Your task to perform on an android device: Open display settings Image 0: 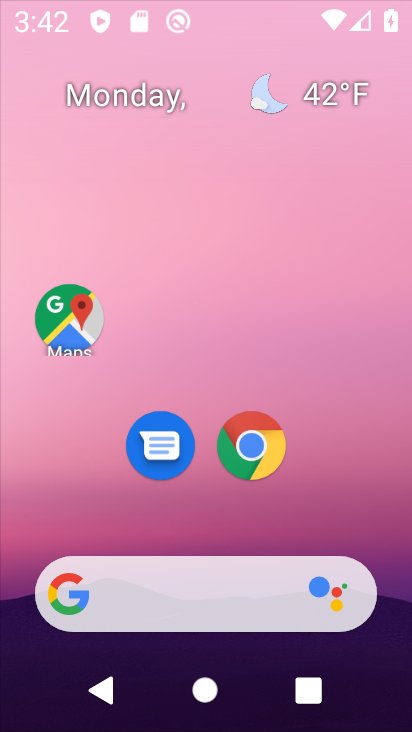
Step 0: drag from (31, 512) to (187, 16)
Your task to perform on an android device: Open display settings Image 1: 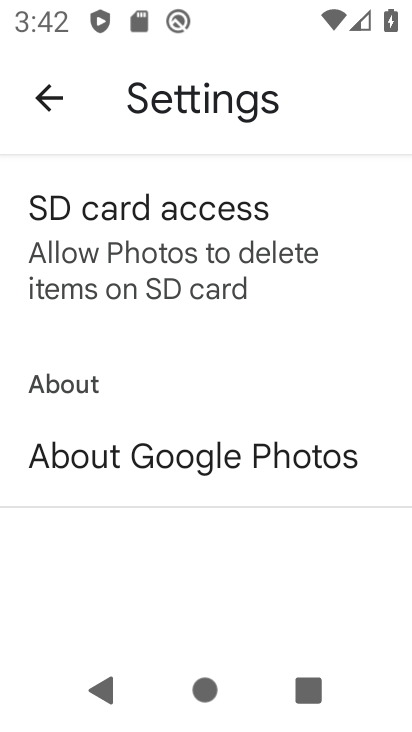
Step 1: press home button
Your task to perform on an android device: Open display settings Image 2: 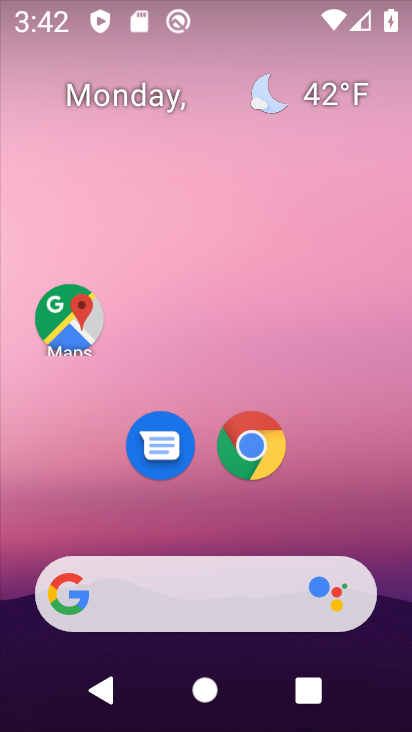
Step 2: click (0, 526)
Your task to perform on an android device: Open display settings Image 3: 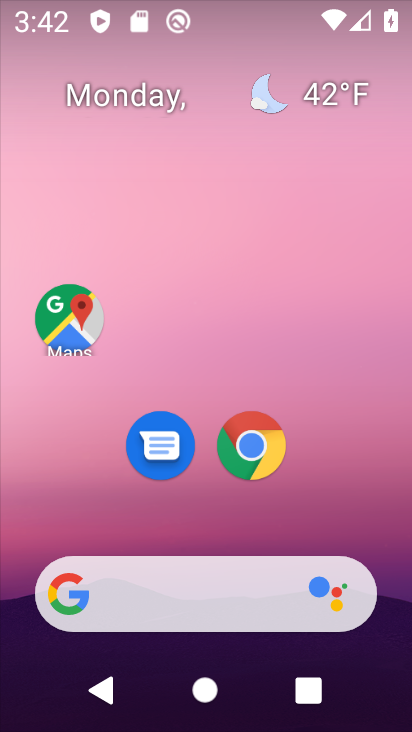
Step 3: drag from (4, 497) to (183, 59)
Your task to perform on an android device: Open display settings Image 4: 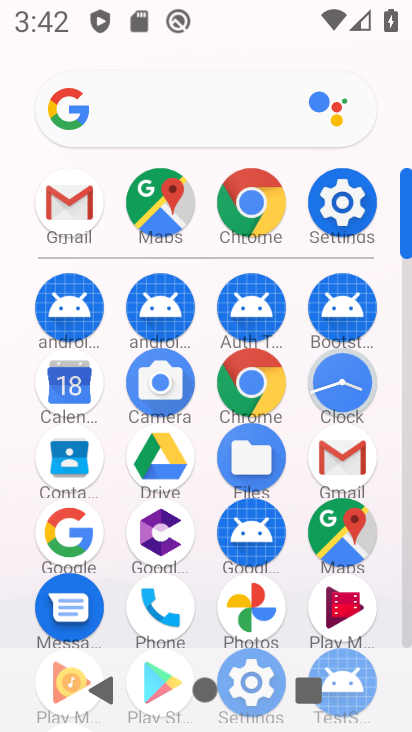
Step 4: click (356, 223)
Your task to perform on an android device: Open display settings Image 5: 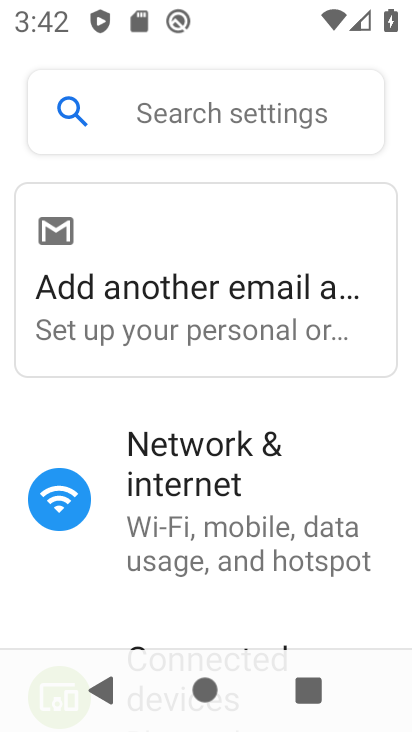
Step 5: drag from (273, 566) to (223, 80)
Your task to perform on an android device: Open display settings Image 6: 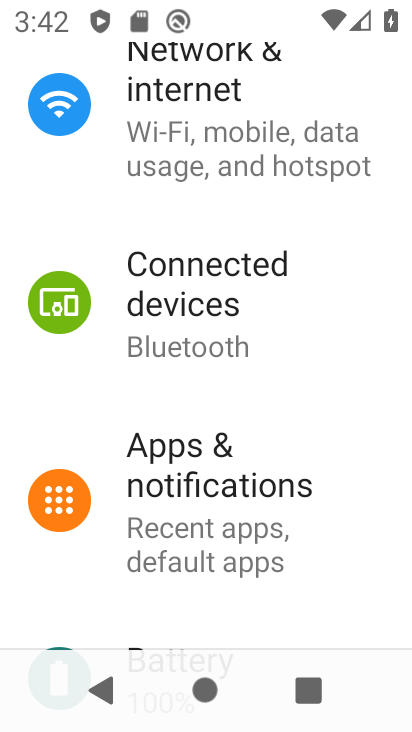
Step 6: drag from (204, 534) to (225, 141)
Your task to perform on an android device: Open display settings Image 7: 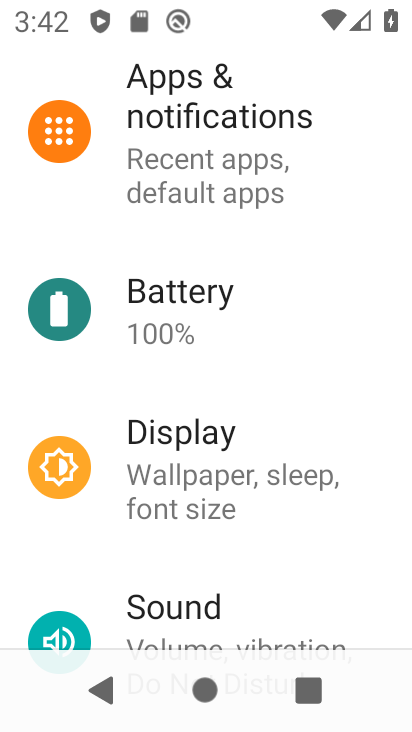
Step 7: click (188, 477)
Your task to perform on an android device: Open display settings Image 8: 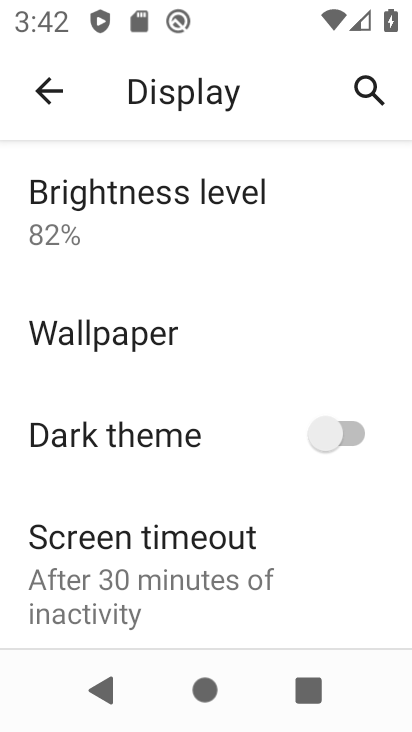
Step 8: task complete